Your task to perform on an android device: Open internet settings Image 0: 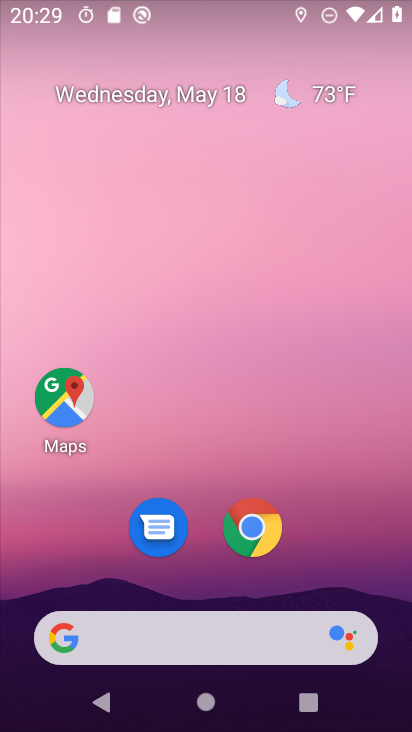
Step 0: drag from (396, 668) to (375, 303)
Your task to perform on an android device: Open internet settings Image 1: 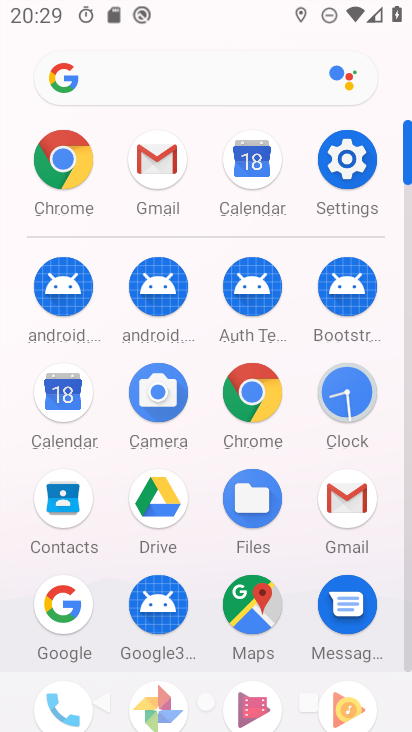
Step 1: click (359, 169)
Your task to perform on an android device: Open internet settings Image 2: 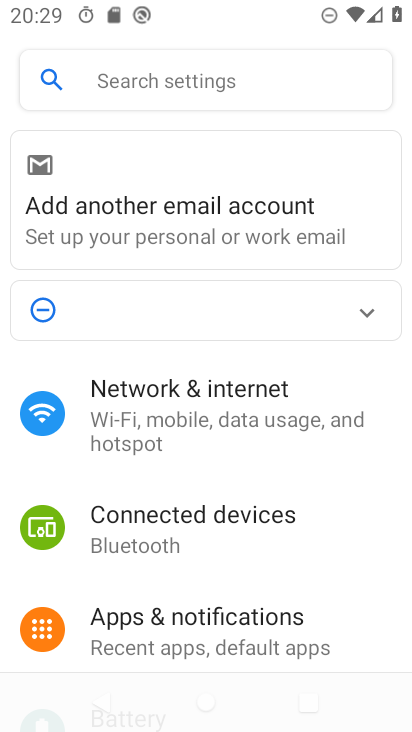
Step 2: click (174, 419)
Your task to perform on an android device: Open internet settings Image 3: 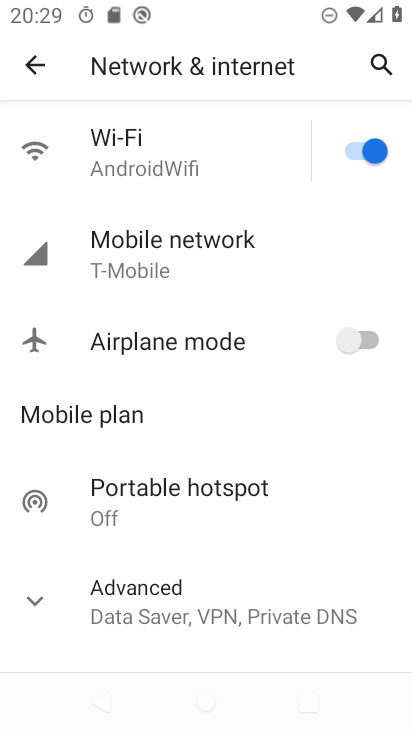
Step 3: click (157, 147)
Your task to perform on an android device: Open internet settings Image 4: 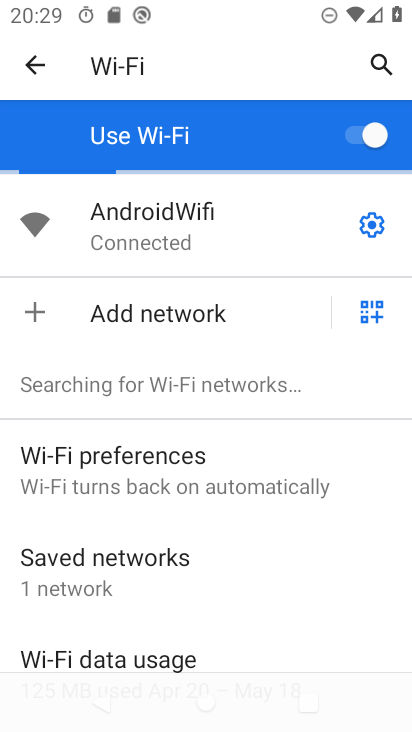
Step 4: click (353, 217)
Your task to perform on an android device: Open internet settings Image 5: 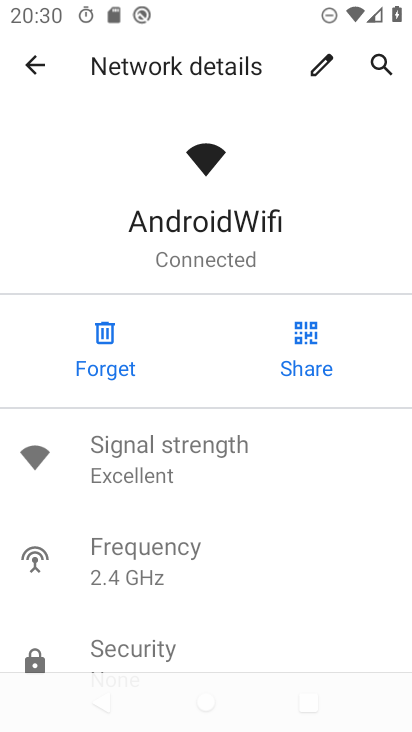
Step 5: click (25, 61)
Your task to perform on an android device: Open internet settings Image 6: 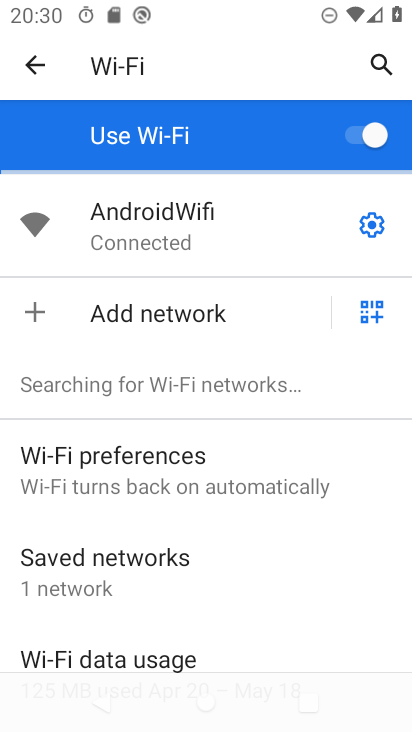
Step 6: task complete